Your task to perform on an android device: check android version Image 0: 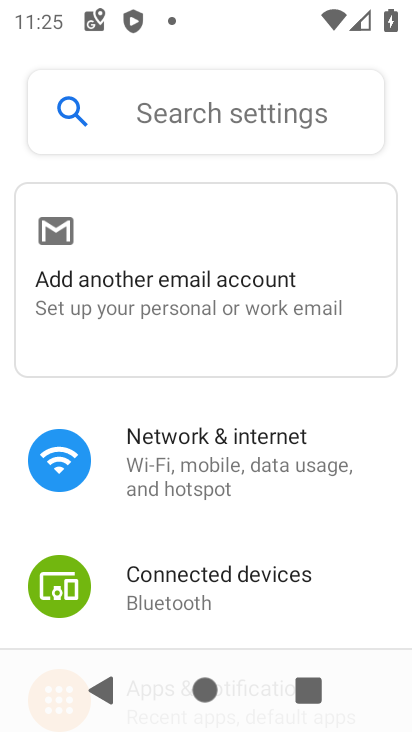
Step 0: drag from (374, 533) to (293, 171)
Your task to perform on an android device: check android version Image 1: 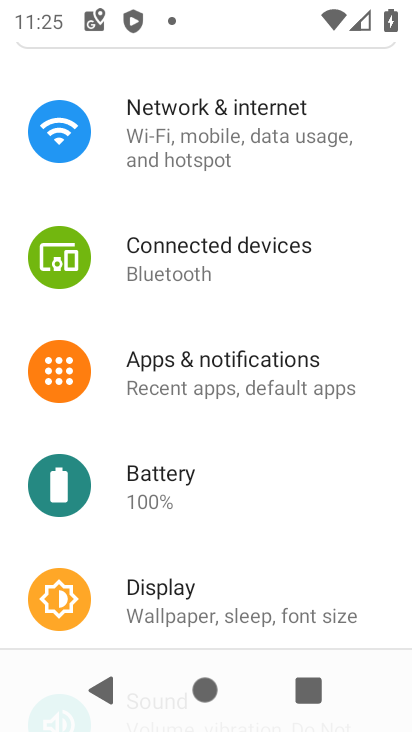
Step 1: task complete